Your task to perform on an android device: turn on bluetooth scan Image 0: 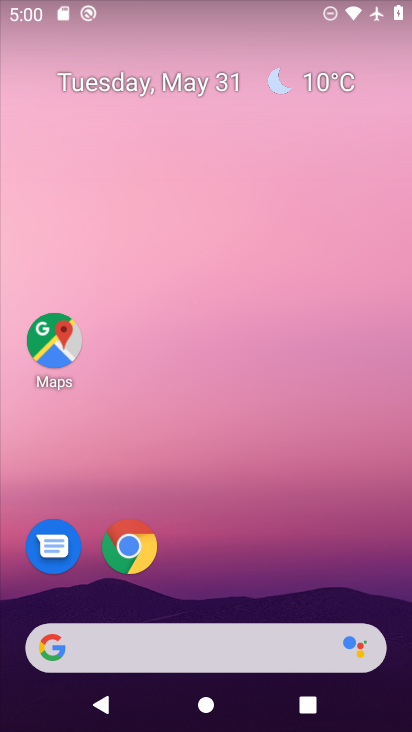
Step 0: drag from (271, 539) to (121, 26)
Your task to perform on an android device: turn on bluetooth scan Image 1: 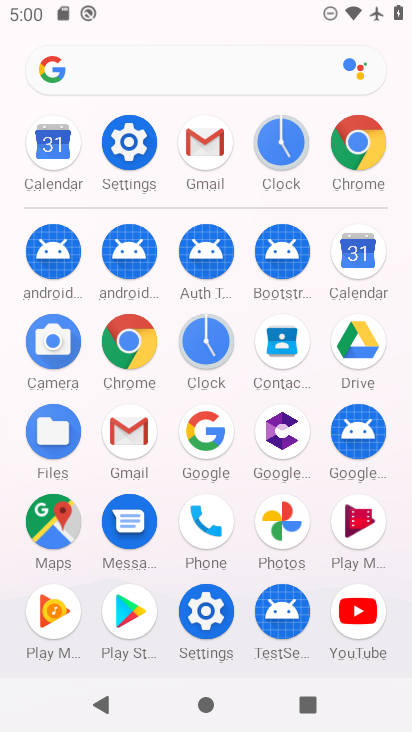
Step 1: click (133, 141)
Your task to perform on an android device: turn on bluetooth scan Image 2: 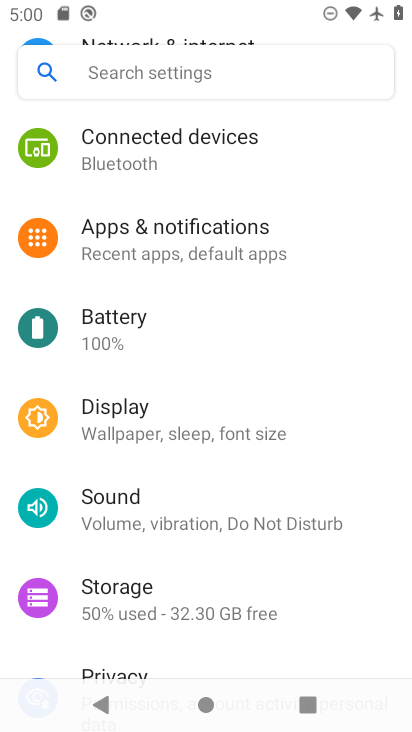
Step 2: drag from (188, 248) to (163, 211)
Your task to perform on an android device: turn on bluetooth scan Image 3: 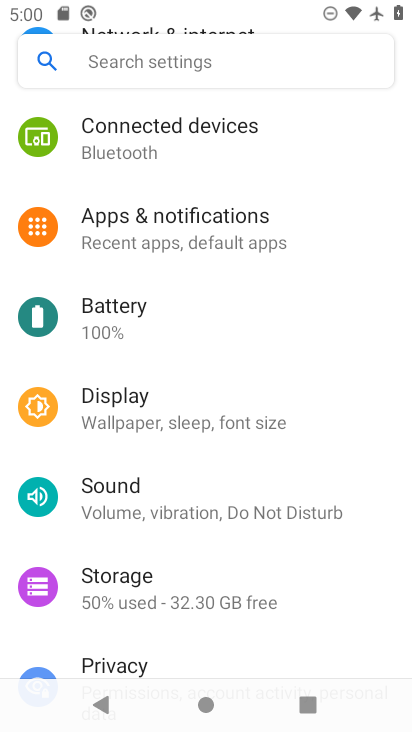
Step 3: drag from (207, 500) to (158, 161)
Your task to perform on an android device: turn on bluetooth scan Image 4: 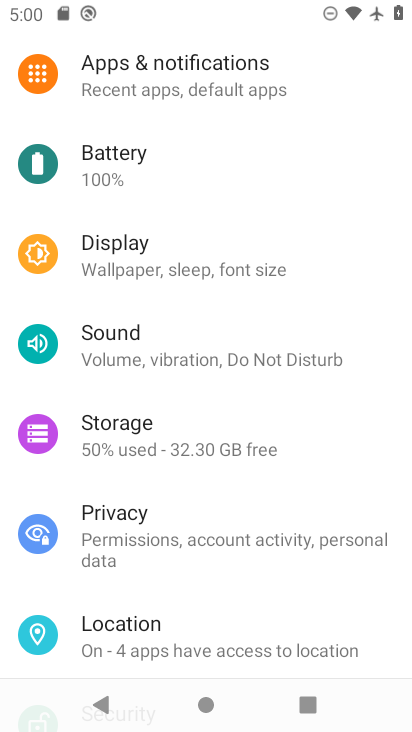
Step 4: click (181, 631)
Your task to perform on an android device: turn on bluetooth scan Image 5: 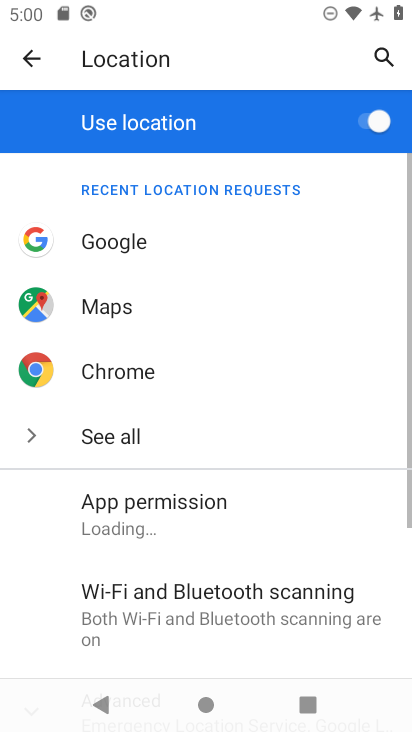
Step 5: click (304, 607)
Your task to perform on an android device: turn on bluetooth scan Image 6: 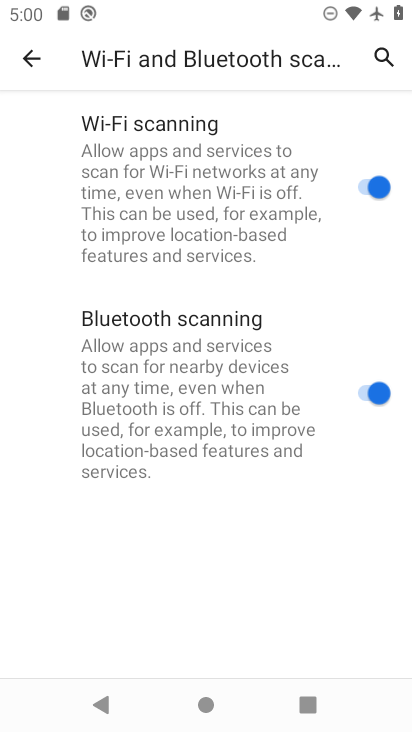
Step 6: task complete